Your task to perform on an android device: Open the phone app and click the voicemail tab. Image 0: 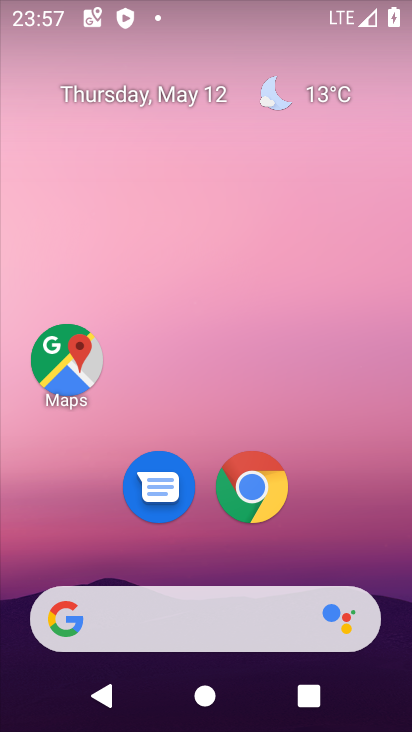
Step 0: drag from (193, 532) to (243, 69)
Your task to perform on an android device: Open the phone app and click the voicemail tab. Image 1: 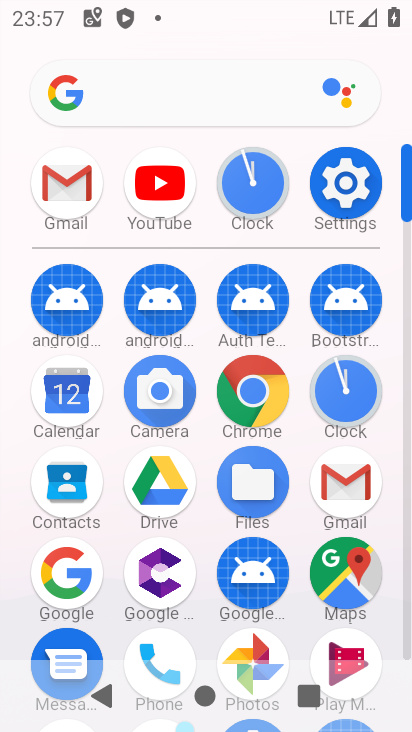
Step 1: click (160, 647)
Your task to perform on an android device: Open the phone app and click the voicemail tab. Image 2: 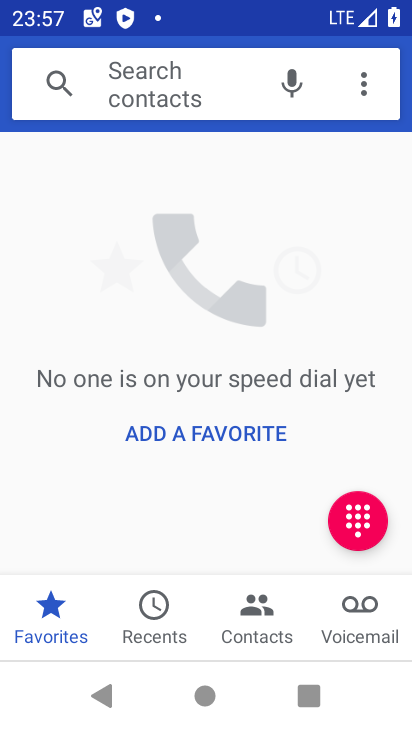
Step 2: click (358, 609)
Your task to perform on an android device: Open the phone app and click the voicemail tab. Image 3: 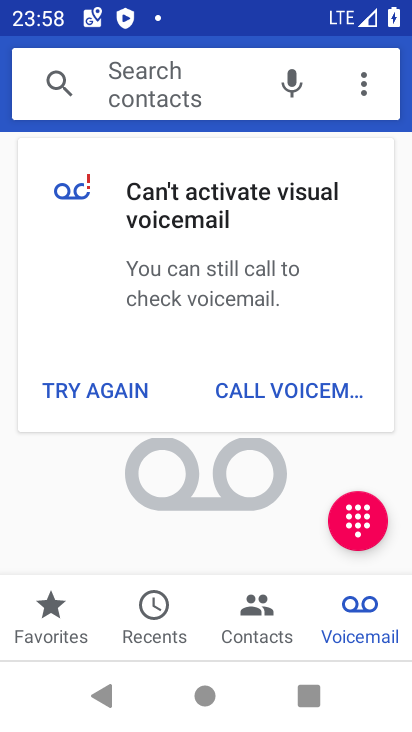
Step 3: task complete